Your task to perform on an android device: delete a single message in the gmail app Image 0: 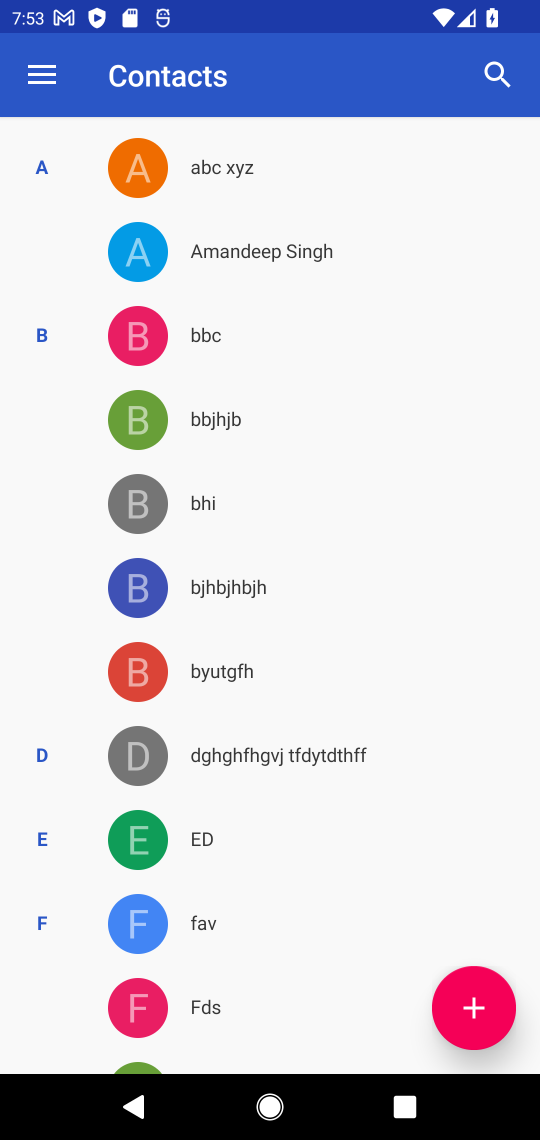
Step 0: press home button
Your task to perform on an android device: delete a single message in the gmail app Image 1: 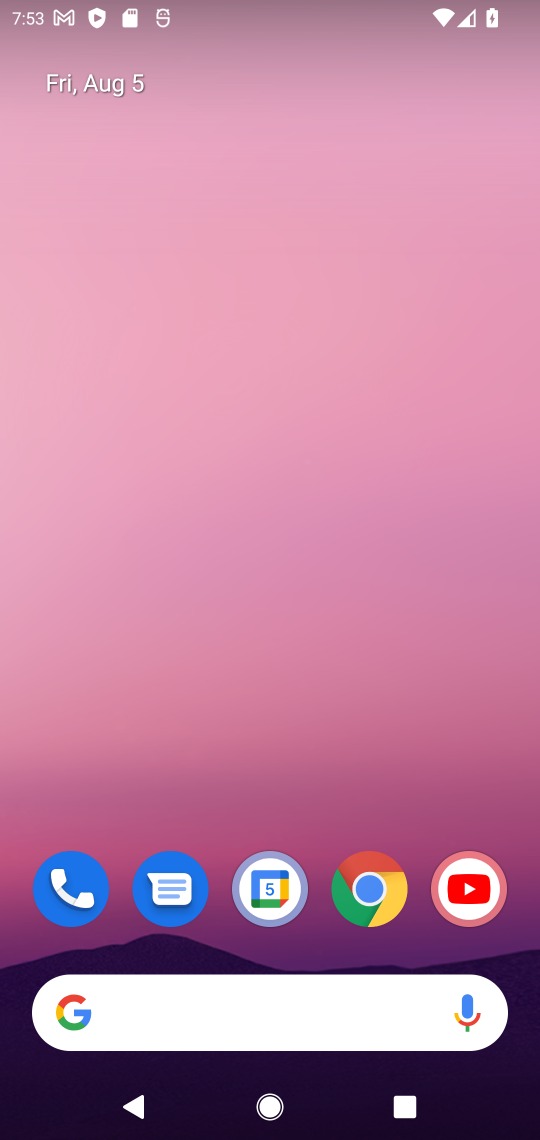
Step 1: drag from (281, 851) to (264, 278)
Your task to perform on an android device: delete a single message in the gmail app Image 2: 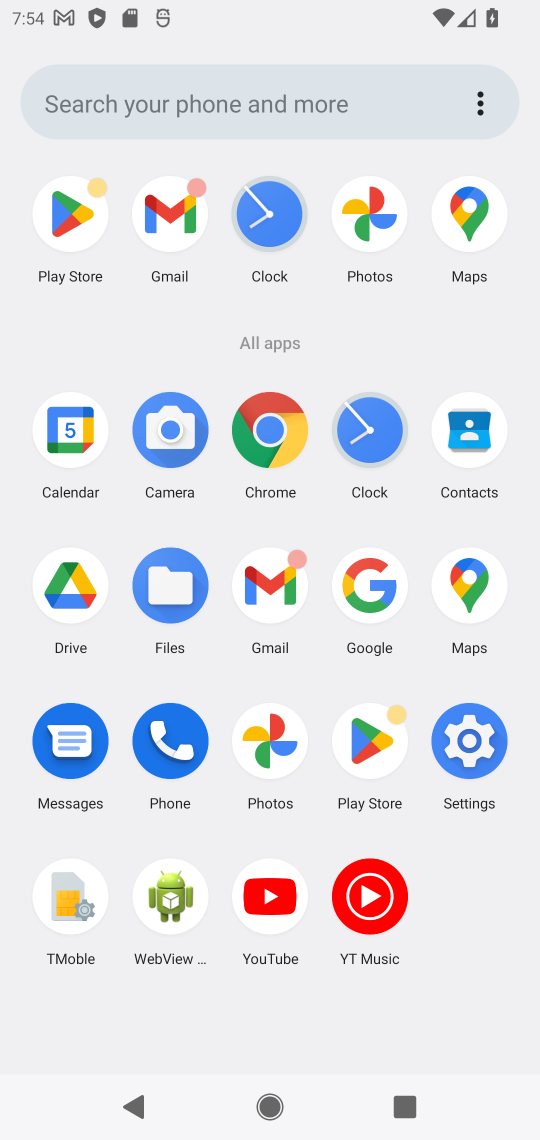
Step 2: click (276, 579)
Your task to perform on an android device: delete a single message in the gmail app Image 3: 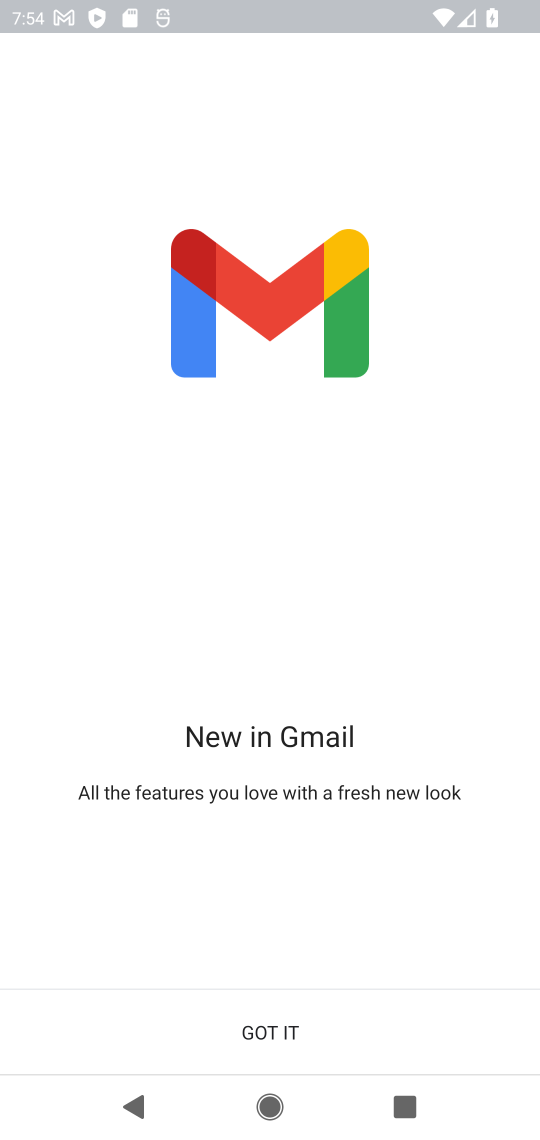
Step 3: click (293, 1037)
Your task to perform on an android device: delete a single message in the gmail app Image 4: 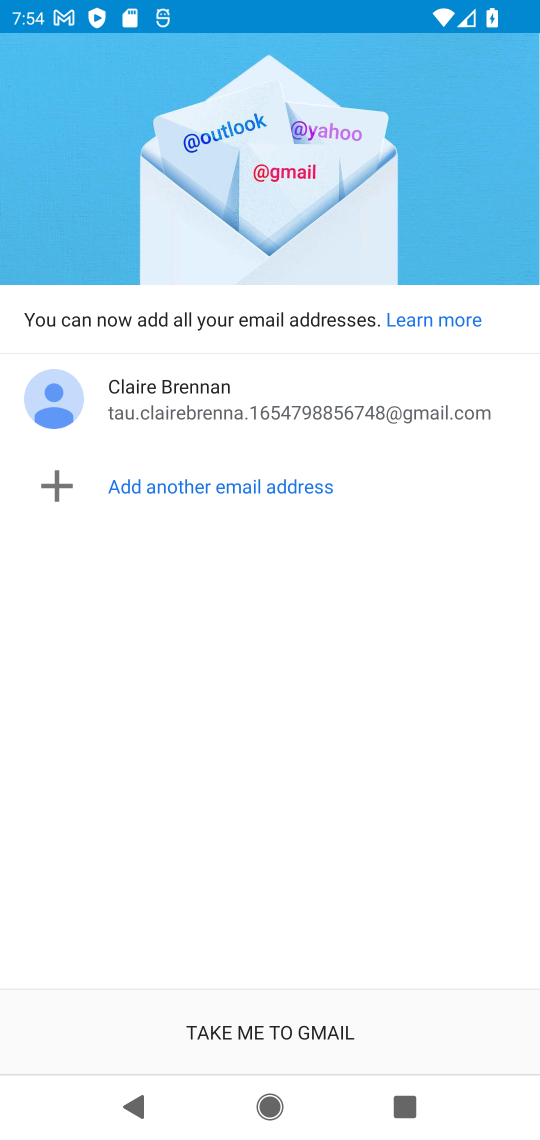
Step 4: click (293, 1037)
Your task to perform on an android device: delete a single message in the gmail app Image 5: 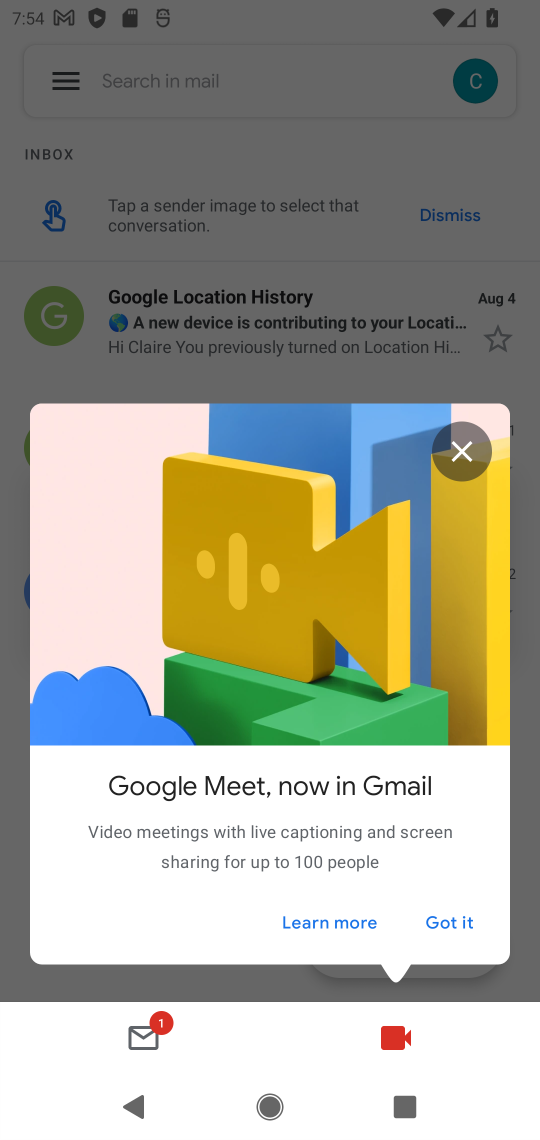
Step 5: click (468, 452)
Your task to perform on an android device: delete a single message in the gmail app Image 6: 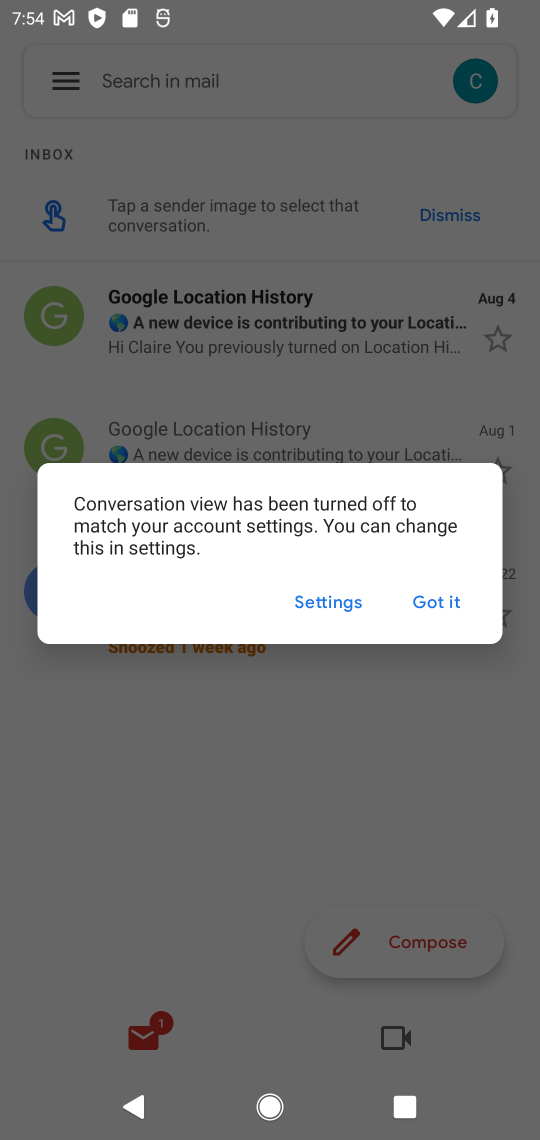
Step 6: click (464, 599)
Your task to perform on an android device: delete a single message in the gmail app Image 7: 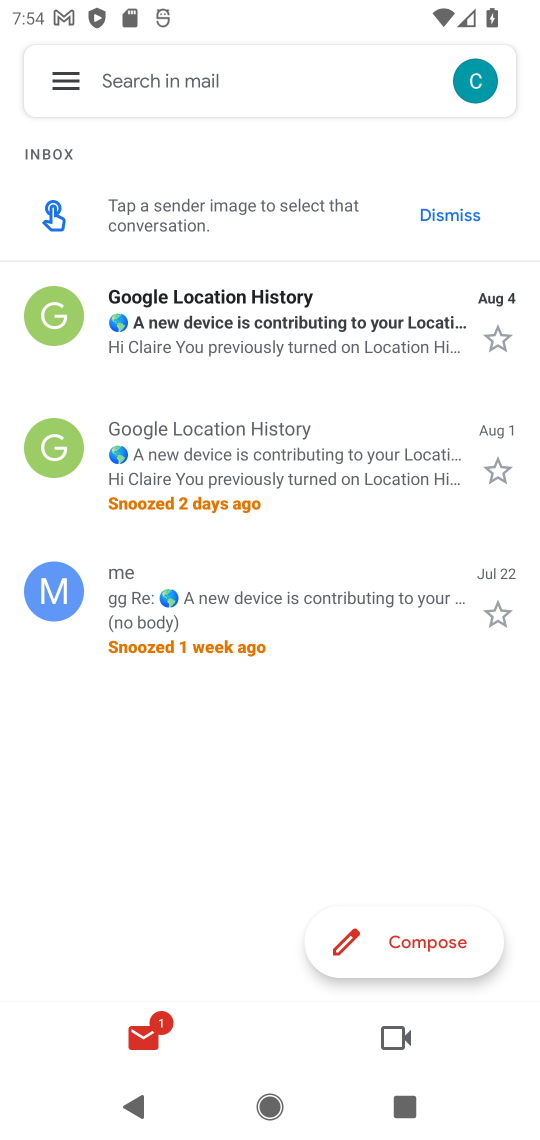
Step 7: click (147, 288)
Your task to perform on an android device: delete a single message in the gmail app Image 8: 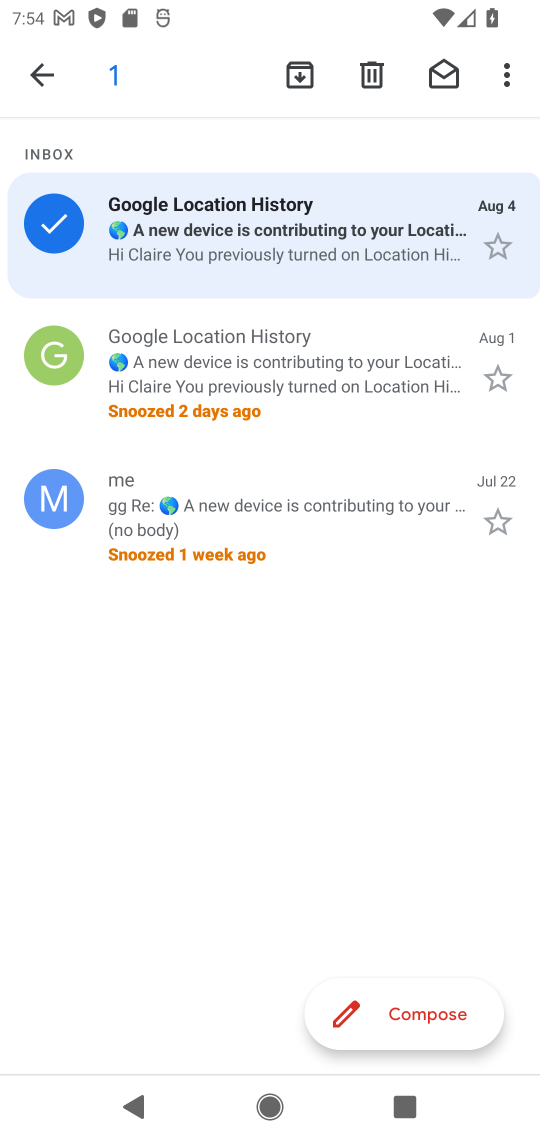
Step 8: click (387, 93)
Your task to perform on an android device: delete a single message in the gmail app Image 9: 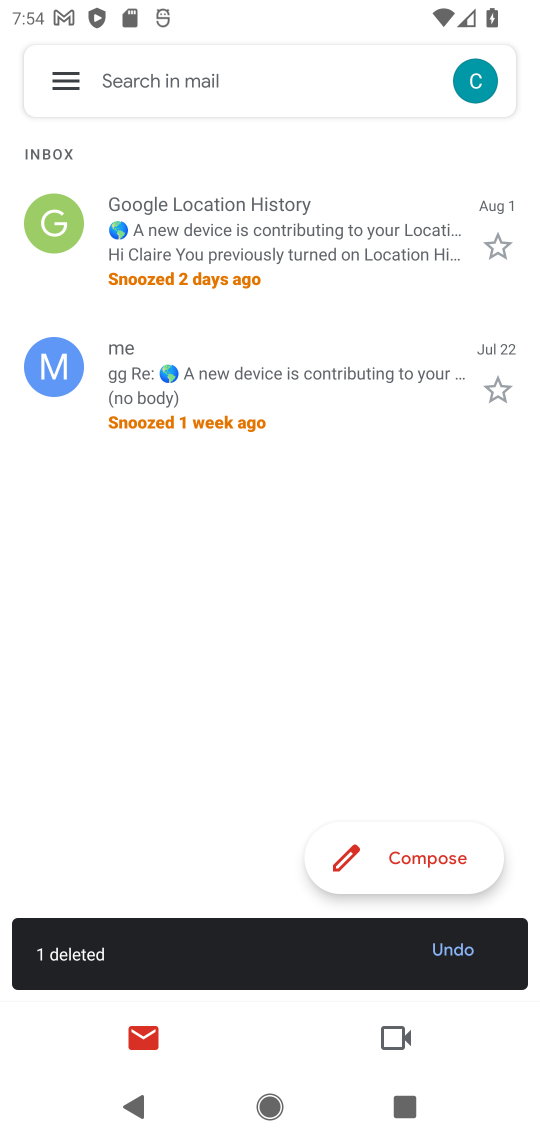
Step 9: task complete